Your task to perform on an android device: Go to calendar. Show me events next week Image 0: 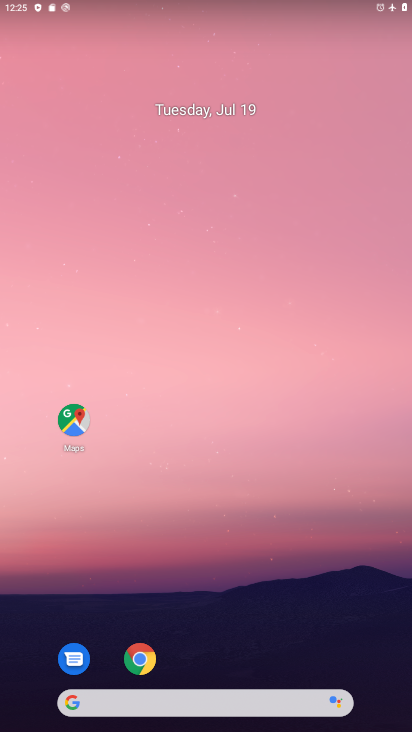
Step 0: click (200, 209)
Your task to perform on an android device: Go to calendar. Show me events next week Image 1: 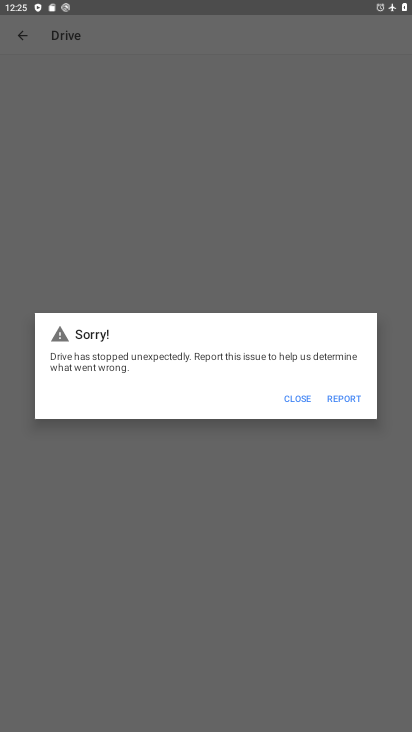
Step 1: press home button
Your task to perform on an android device: Go to calendar. Show me events next week Image 2: 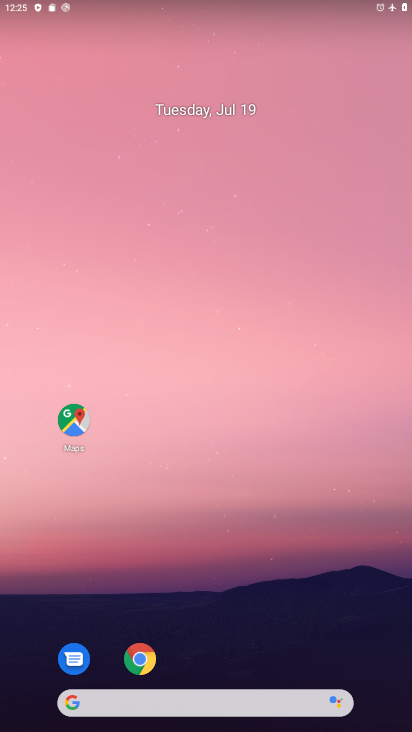
Step 2: drag from (200, 702) to (159, 274)
Your task to perform on an android device: Go to calendar. Show me events next week Image 3: 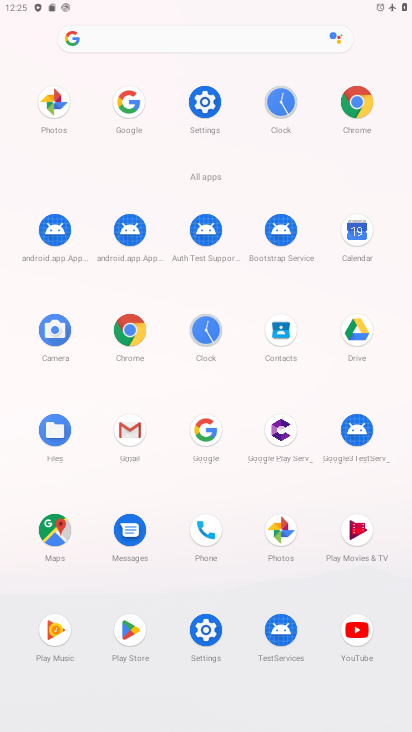
Step 3: click (361, 238)
Your task to perform on an android device: Go to calendar. Show me events next week Image 4: 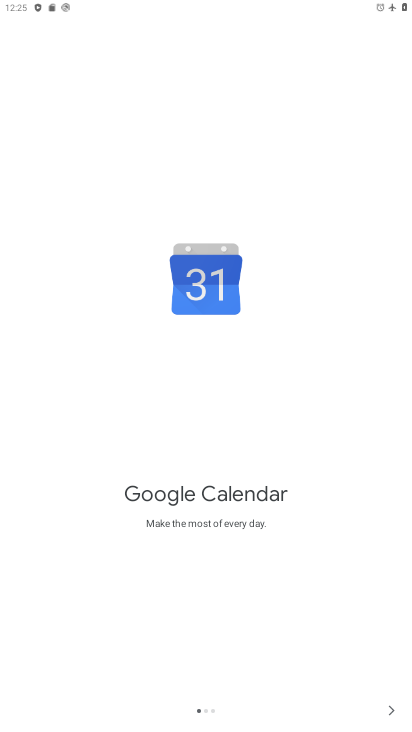
Step 4: click (387, 707)
Your task to perform on an android device: Go to calendar. Show me events next week Image 5: 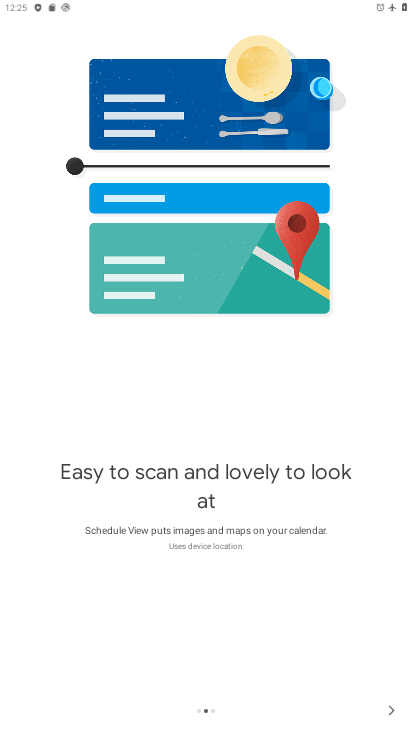
Step 5: click (387, 707)
Your task to perform on an android device: Go to calendar. Show me events next week Image 6: 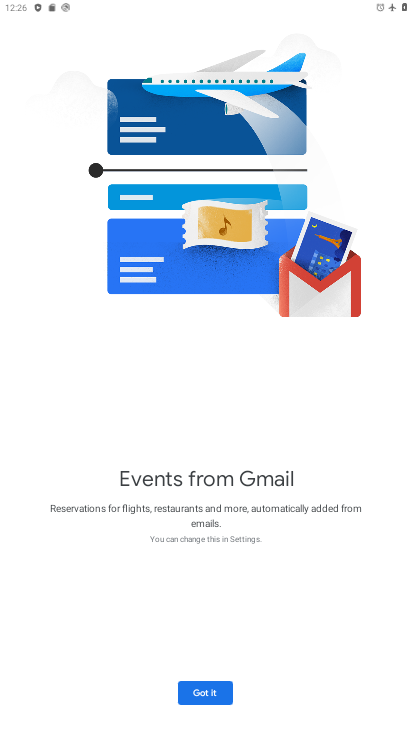
Step 6: click (208, 698)
Your task to perform on an android device: Go to calendar. Show me events next week Image 7: 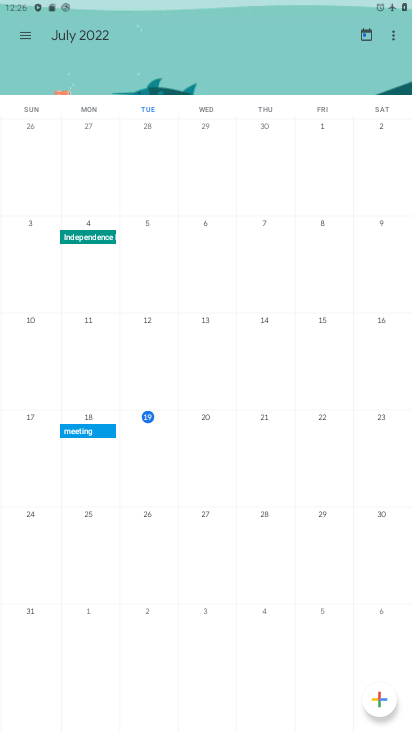
Step 7: task complete